Your task to perform on an android device: Go to ESPN.com Image 0: 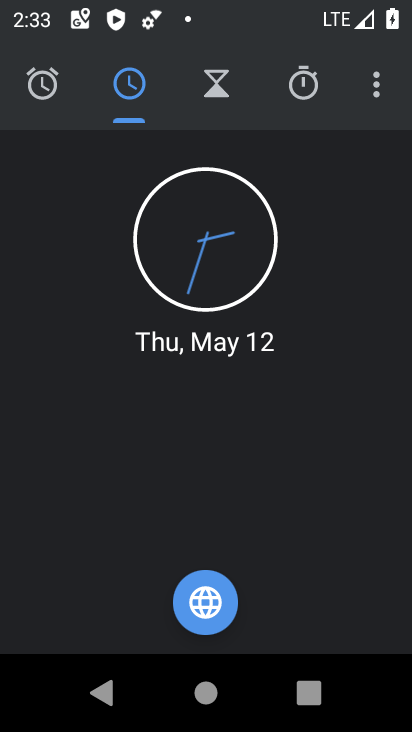
Step 0: press home button
Your task to perform on an android device: Go to ESPN.com Image 1: 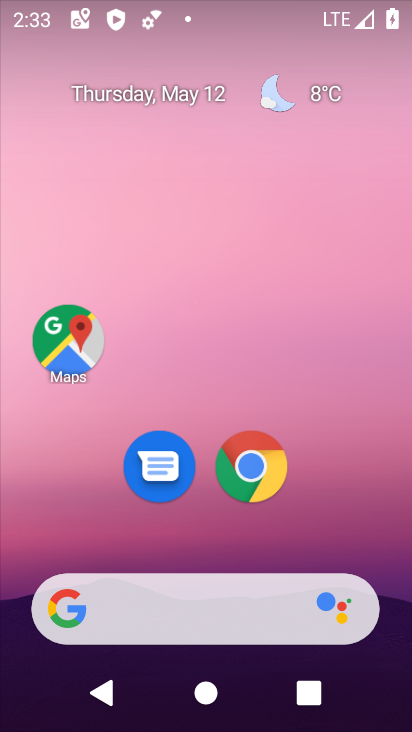
Step 1: click (252, 459)
Your task to perform on an android device: Go to ESPN.com Image 2: 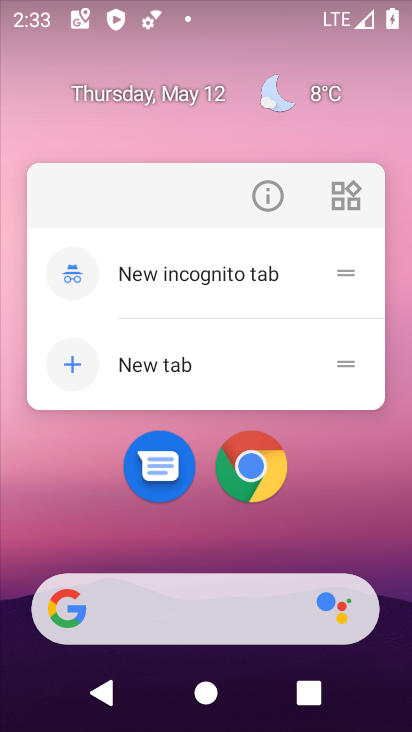
Step 2: click (256, 481)
Your task to perform on an android device: Go to ESPN.com Image 3: 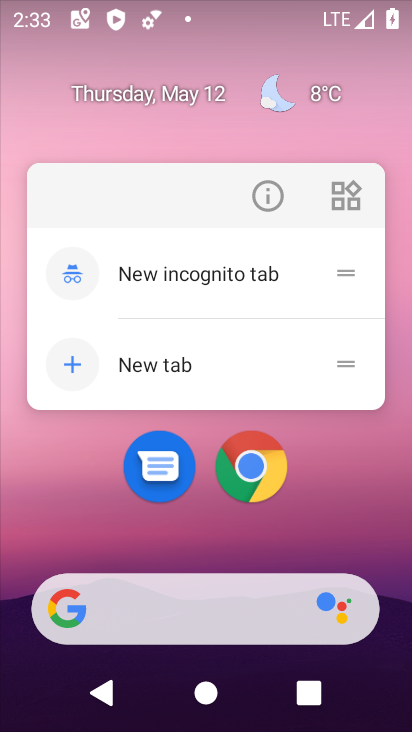
Step 3: click (256, 480)
Your task to perform on an android device: Go to ESPN.com Image 4: 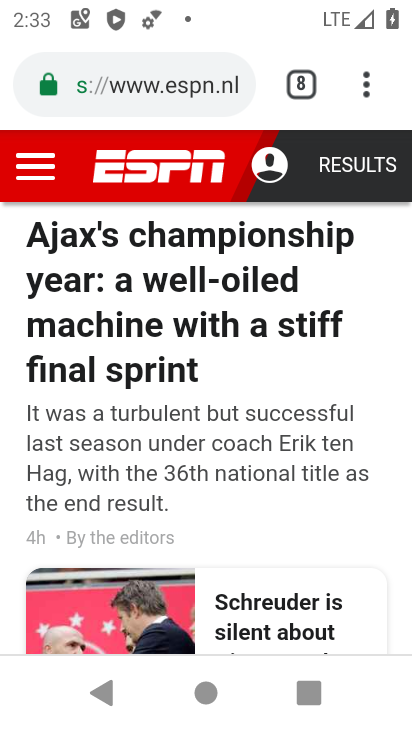
Step 4: task complete